Your task to perform on an android device: What's a good restaurant in Phoenix? Image 0: 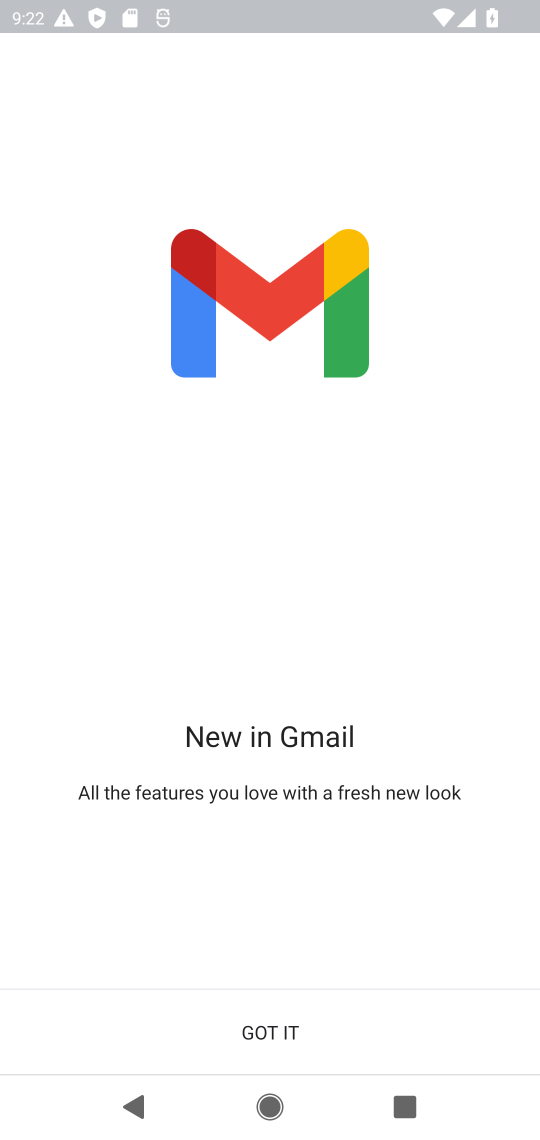
Step 0: press home button
Your task to perform on an android device: What's a good restaurant in Phoenix? Image 1: 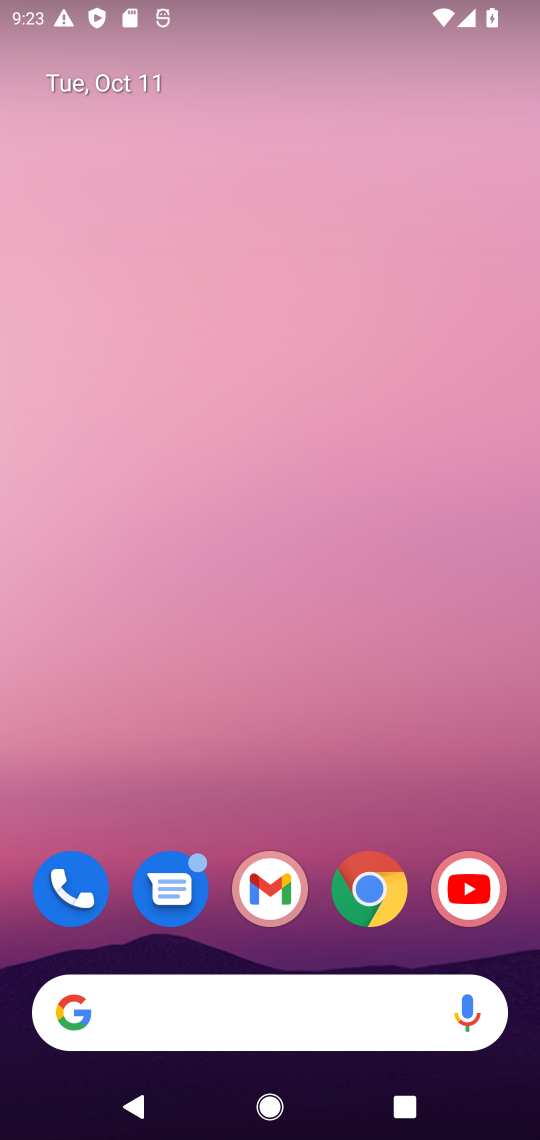
Step 1: click (235, 994)
Your task to perform on an android device: What's a good restaurant in Phoenix? Image 2: 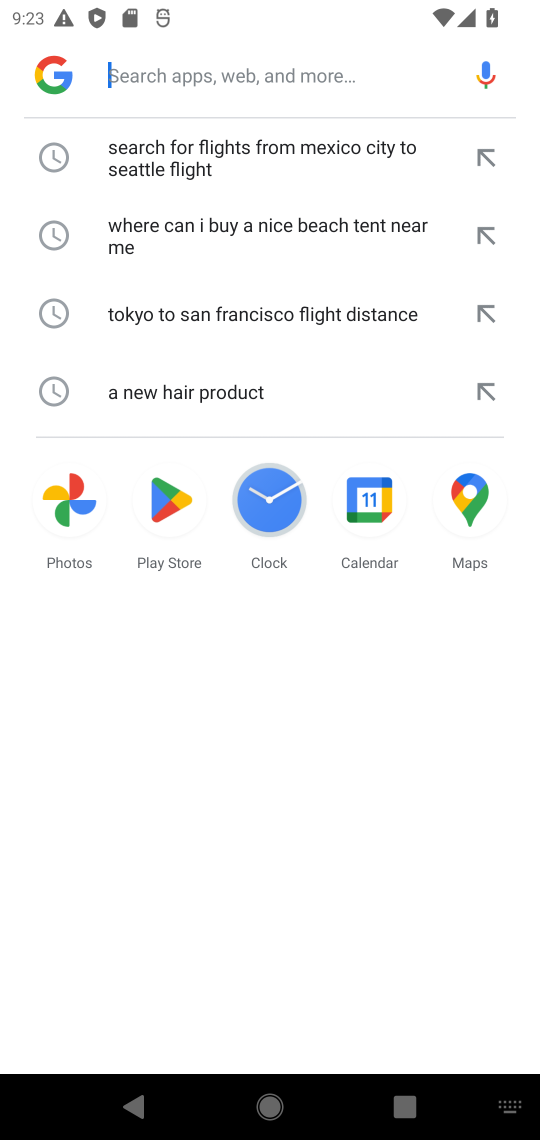
Step 2: type "What's a good restaurant in Phoenix?"
Your task to perform on an android device: What's a good restaurant in Phoenix? Image 3: 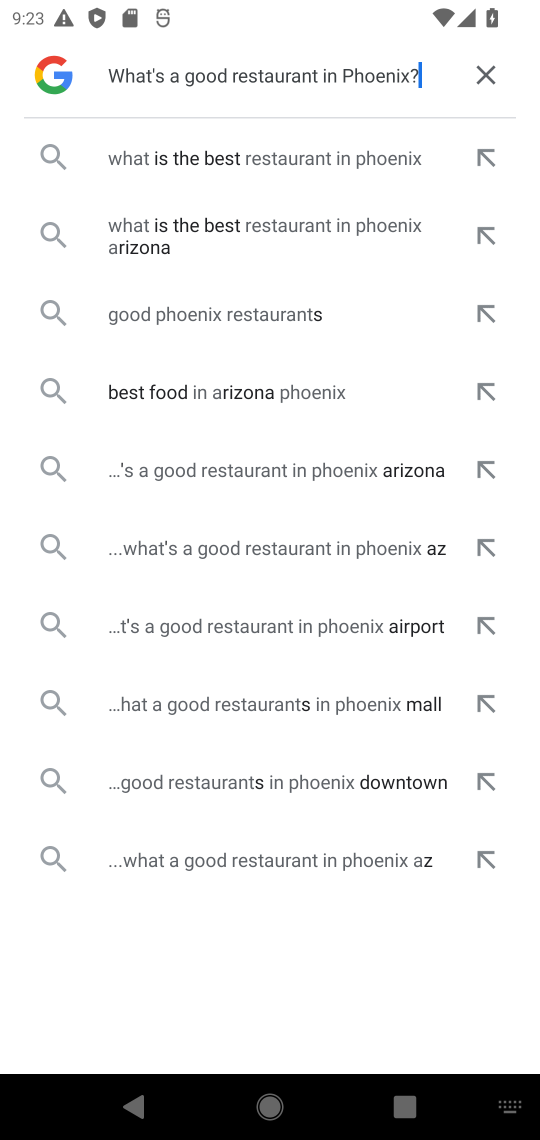
Step 3: click (320, 163)
Your task to perform on an android device: What's a good restaurant in Phoenix? Image 4: 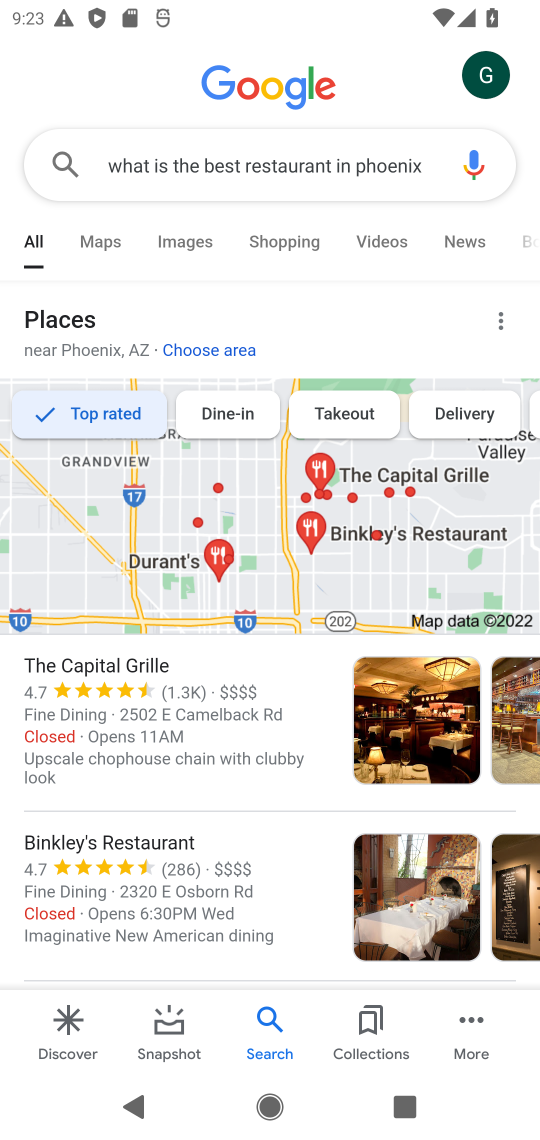
Step 4: task complete